Your task to perform on an android device: toggle show notifications on the lock screen Image 0: 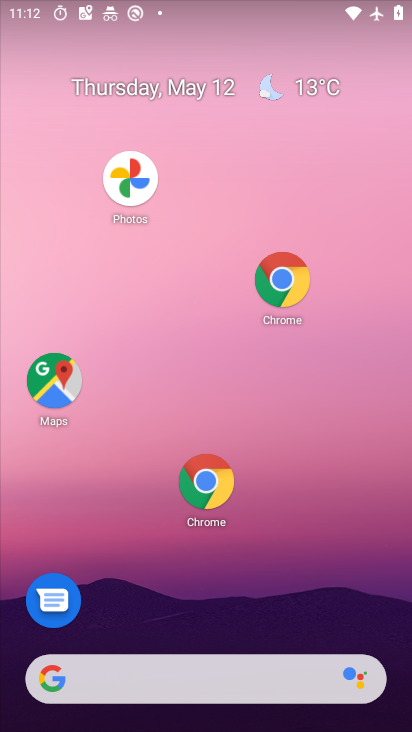
Step 0: click (134, 41)
Your task to perform on an android device: toggle show notifications on the lock screen Image 1: 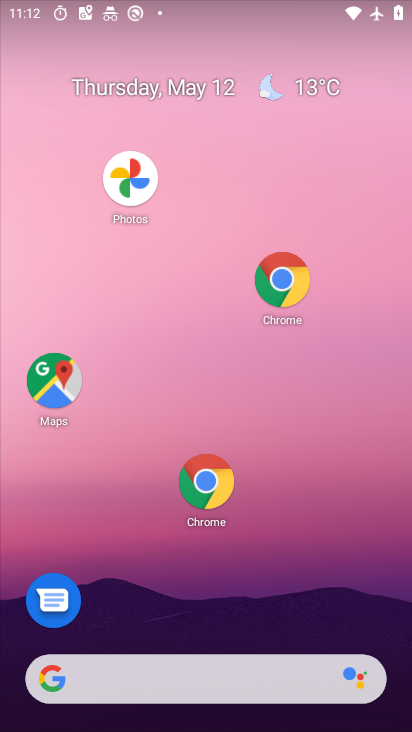
Step 1: drag from (246, 495) to (186, 1)
Your task to perform on an android device: toggle show notifications on the lock screen Image 2: 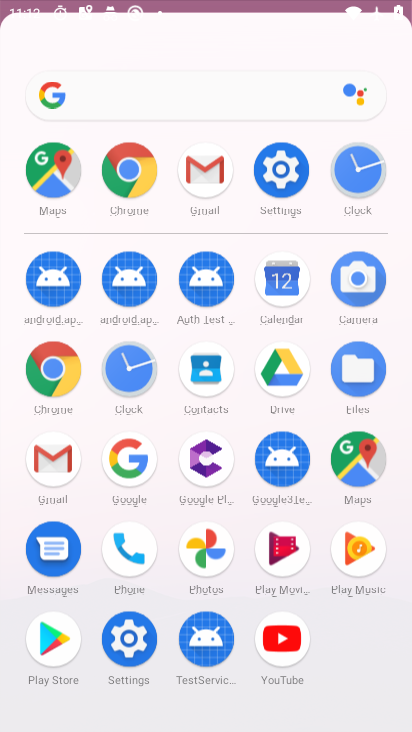
Step 2: drag from (199, 538) to (191, 76)
Your task to perform on an android device: toggle show notifications on the lock screen Image 3: 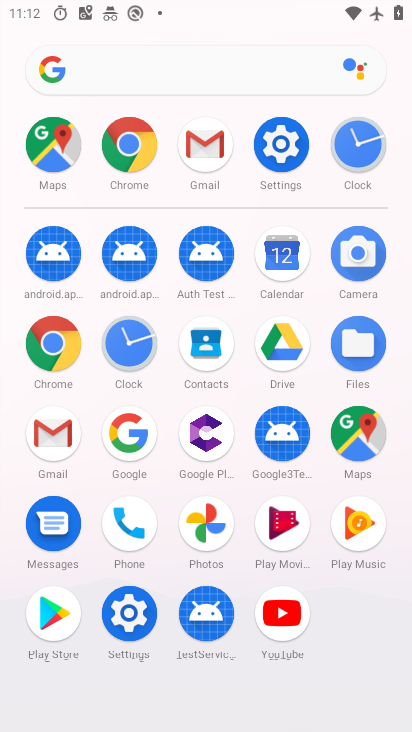
Step 3: click (122, 347)
Your task to perform on an android device: toggle show notifications on the lock screen Image 4: 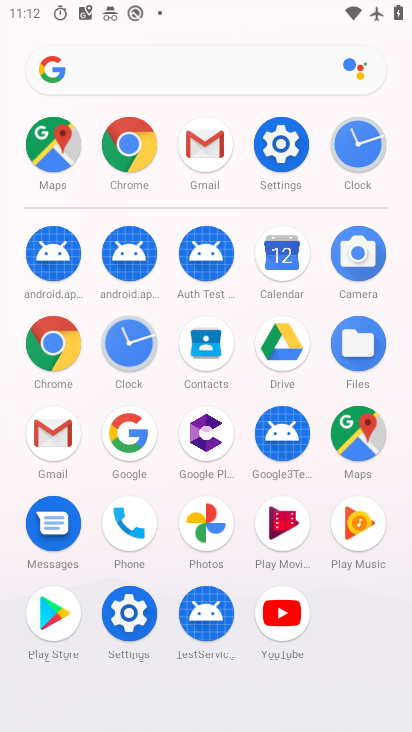
Step 4: click (123, 342)
Your task to perform on an android device: toggle show notifications on the lock screen Image 5: 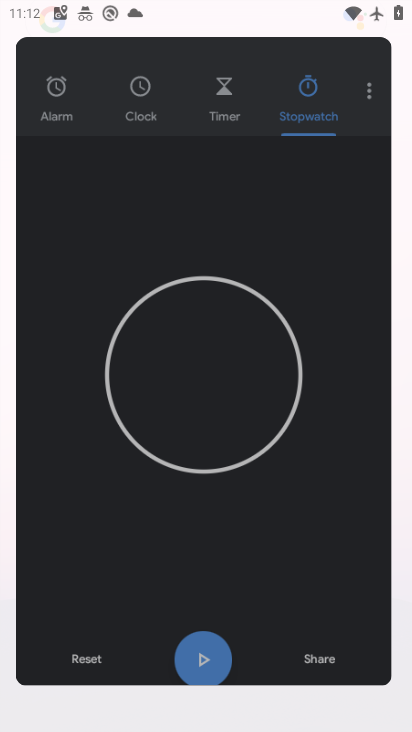
Step 5: click (128, 344)
Your task to perform on an android device: toggle show notifications on the lock screen Image 6: 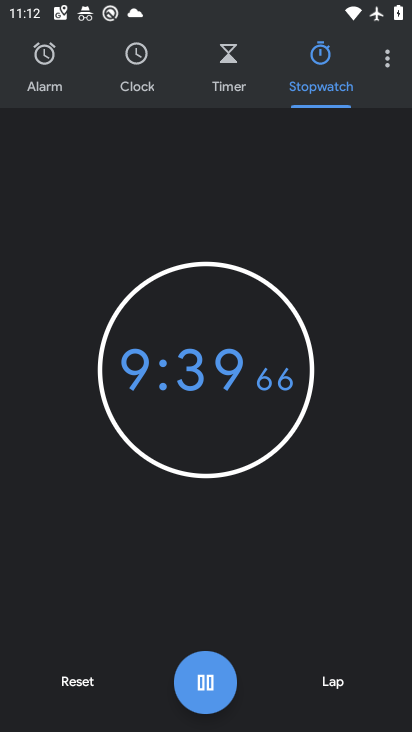
Step 6: click (199, 680)
Your task to perform on an android device: toggle show notifications on the lock screen Image 7: 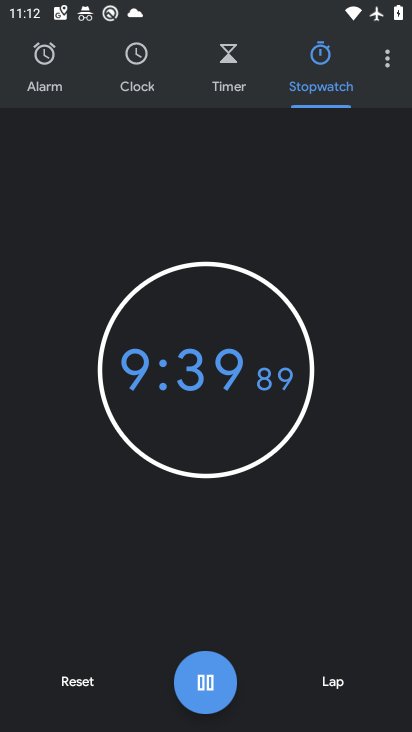
Step 7: click (200, 680)
Your task to perform on an android device: toggle show notifications on the lock screen Image 8: 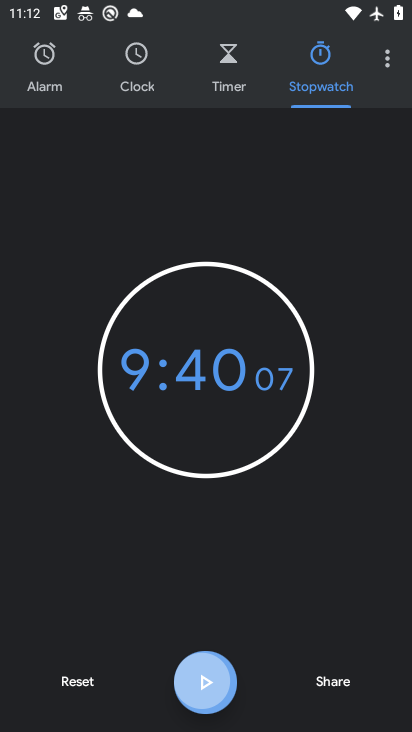
Step 8: click (196, 678)
Your task to perform on an android device: toggle show notifications on the lock screen Image 9: 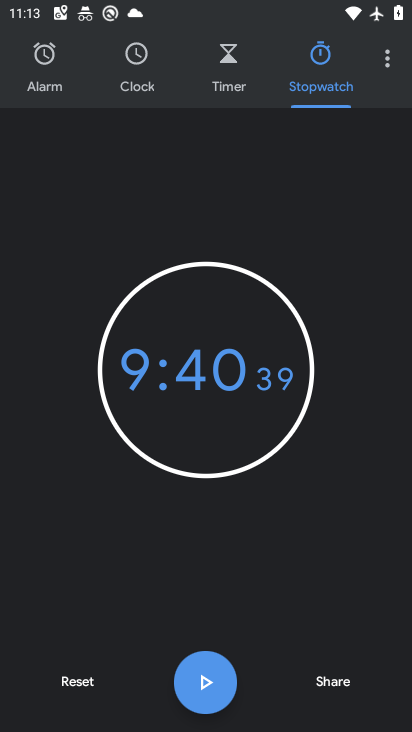
Step 9: press back button
Your task to perform on an android device: toggle show notifications on the lock screen Image 10: 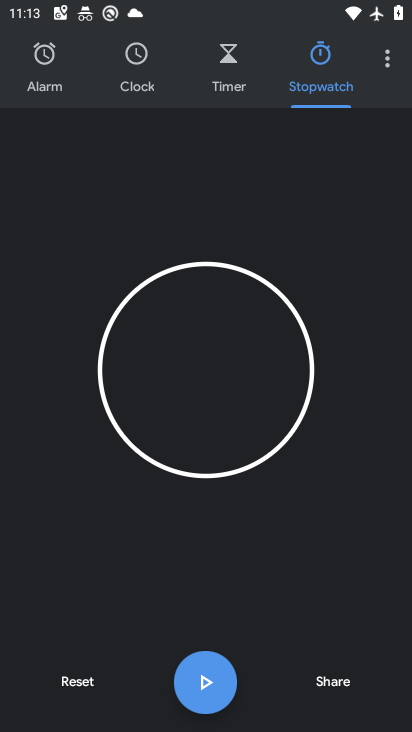
Step 10: press back button
Your task to perform on an android device: toggle show notifications on the lock screen Image 11: 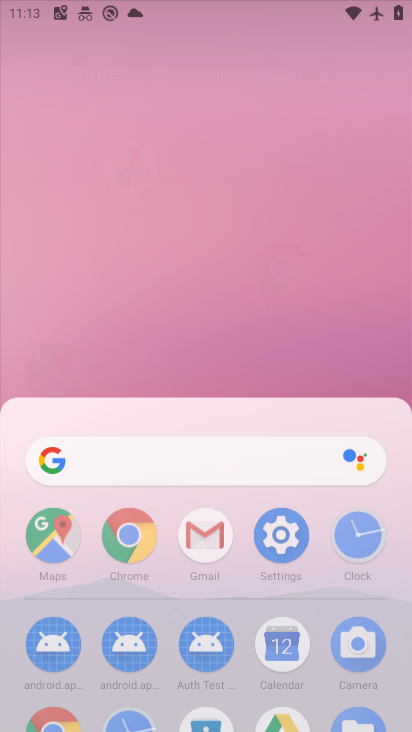
Step 11: press back button
Your task to perform on an android device: toggle show notifications on the lock screen Image 12: 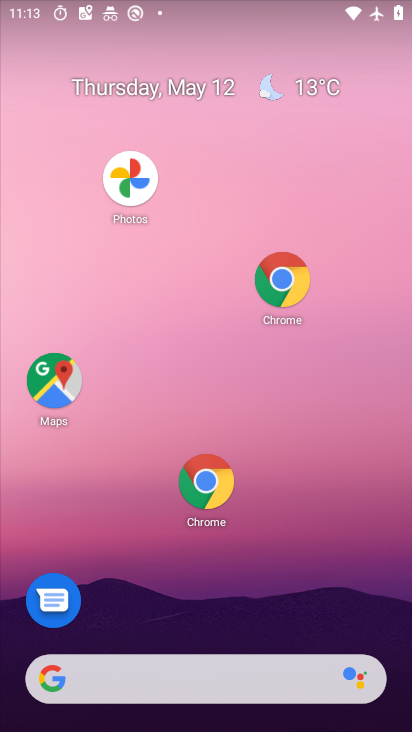
Step 12: drag from (284, 603) to (162, 14)
Your task to perform on an android device: toggle show notifications on the lock screen Image 13: 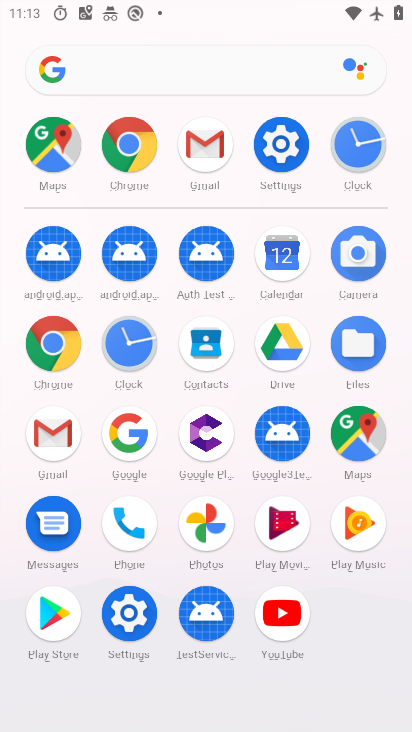
Step 13: click (135, 338)
Your task to perform on an android device: toggle show notifications on the lock screen Image 14: 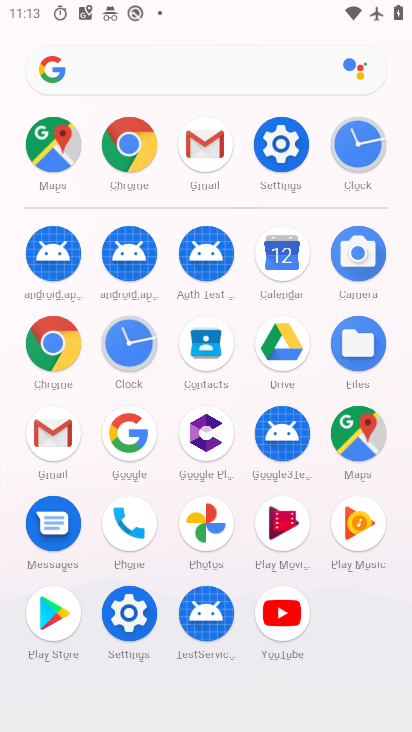
Step 14: click (135, 338)
Your task to perform on an android device: toggle show notifications on the lock screen Image 15: 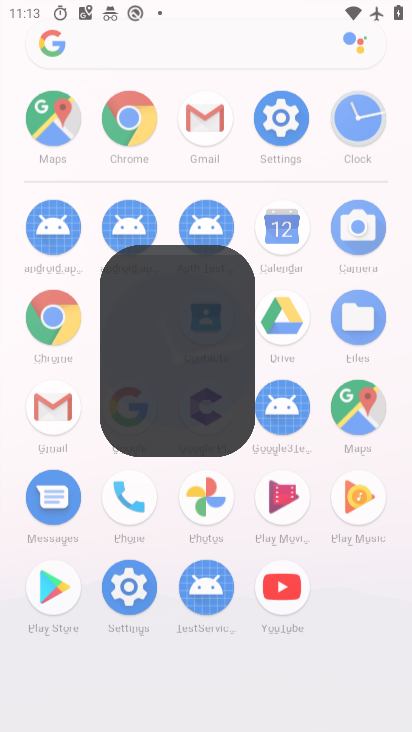
Step 15: click (135, 338)
Your task to perform on an android device: toggle show notifications on the lock screen Image 16: 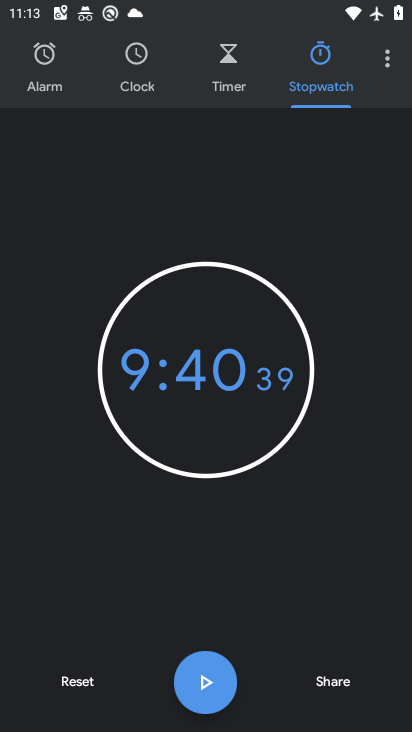
Step 16: click (384, 66)
Your task to perform on an android device: toggle show notifications on the lock screen Image 17: 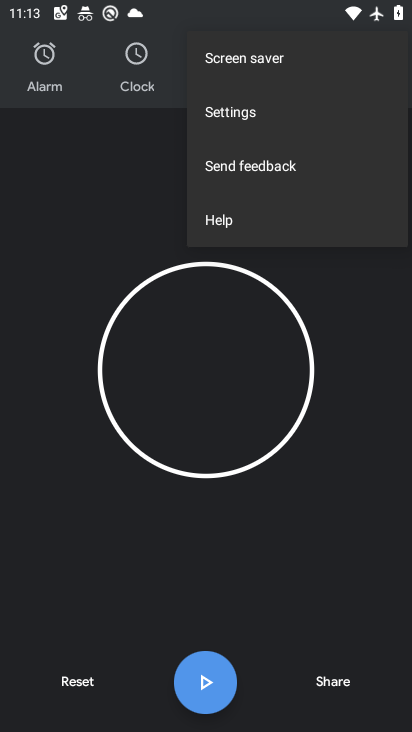
Step 17: click (231, 110)
Your task to perform on an android device: toggle show notifications on the lock screen Image 18: 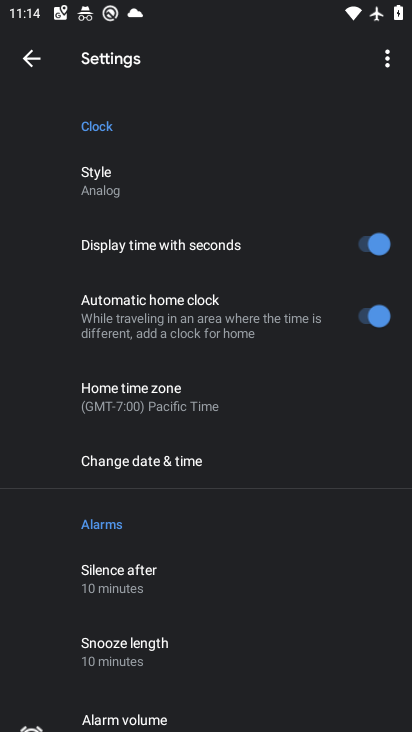
Step 18: press back button
Your task to perform on an android device: toggle show notifications on the lock screen Image 19: 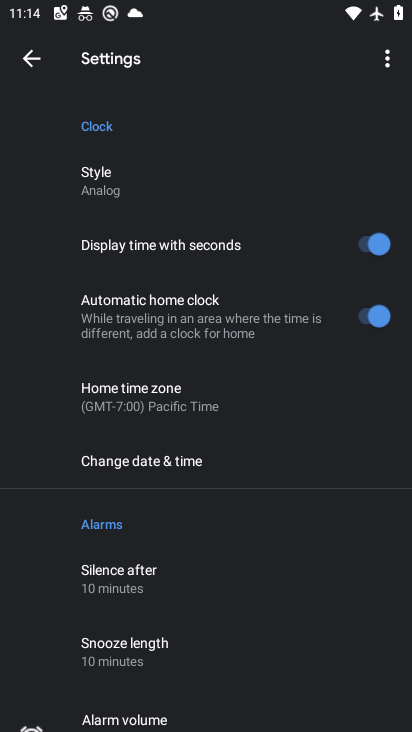
Step 19: press back button
Your task to perform on an android device: toggle show notifications on the lock screen Image 20: 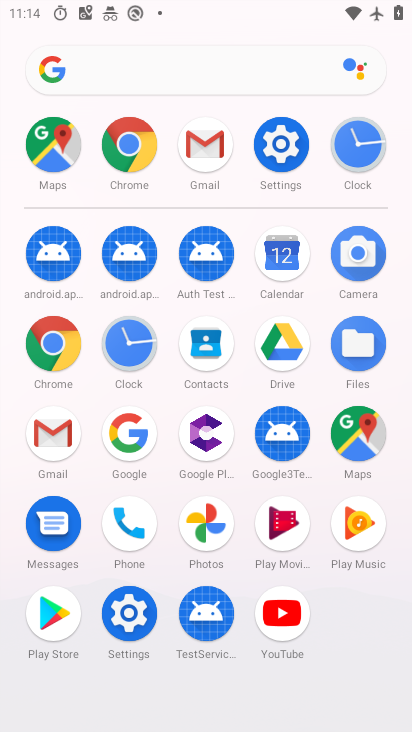
Step 20: click (284, 153)
Your task to perform on an android device: toggle show notifications on the lock screen Image 21: 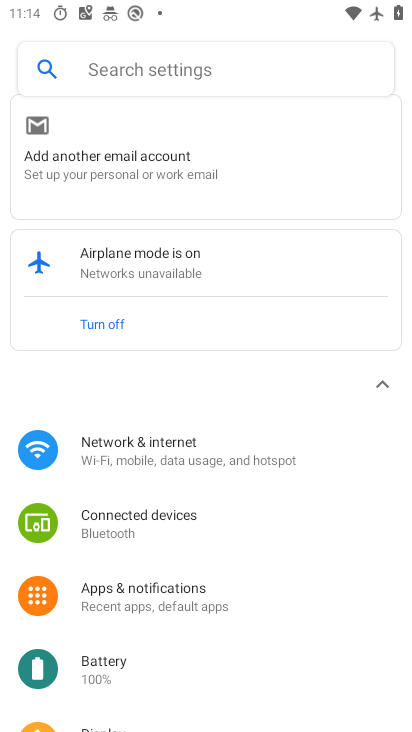
Step 21: drag from (129, 524) to (88, 348)
Your task to perform on an android device: toggle show notifications on the lock screen Image 22: 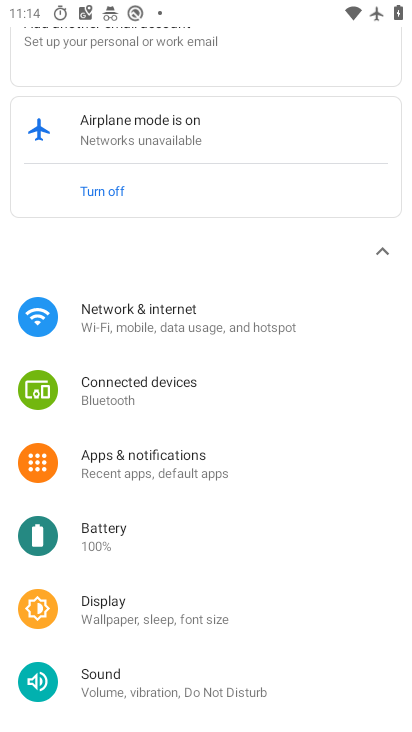
Step 22: drag from (168, 569) to (164, 354)
Your task to perform on an android device: toggle show notifications on the lock screen Image 23: 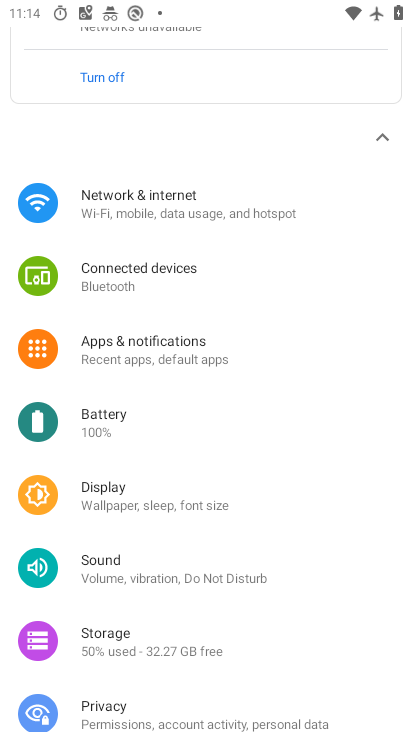
Step 23: drag from (192, 367) to (193, 238)
Your task to perform on an android device: toggle show notifications on the lock screen Image 24: 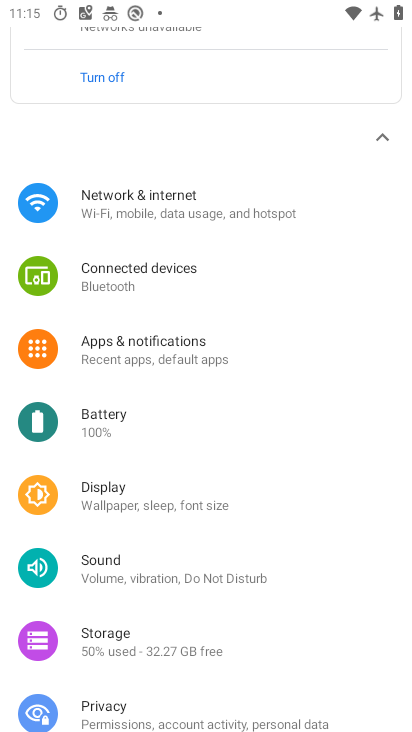
Step 24: click (127, 351)
Your task to perform on an android device: toggle show notifications on the lock screen Image 25: 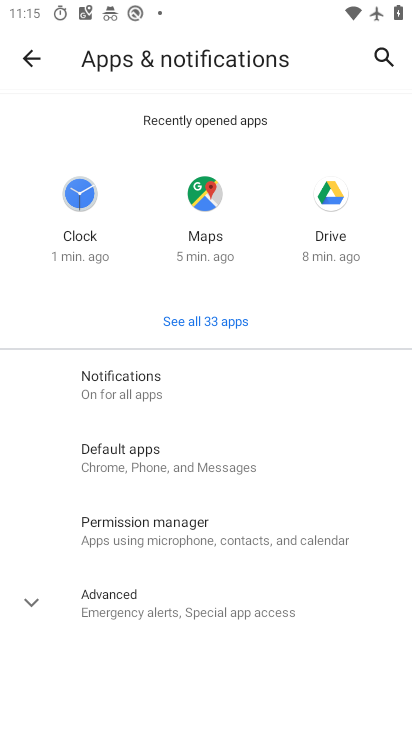
Step 25: click (102, 379)
Your task to perform on an android device: toggle show notifications on the lock screen Image 26: 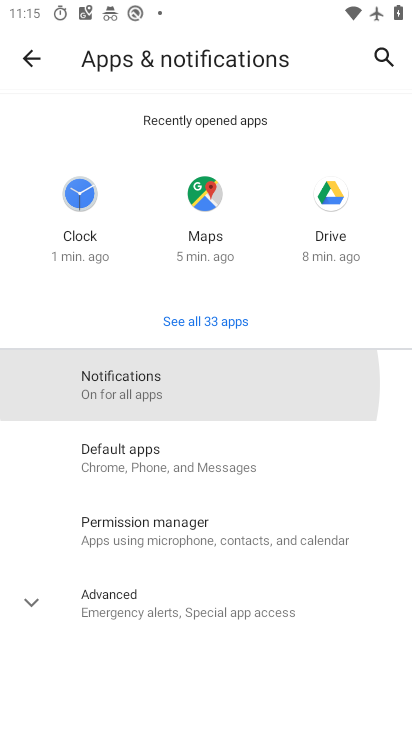
Step 26: click (106, 384)
Your task to perform on an android device: toggle show notifications on the lock screen Image 27: 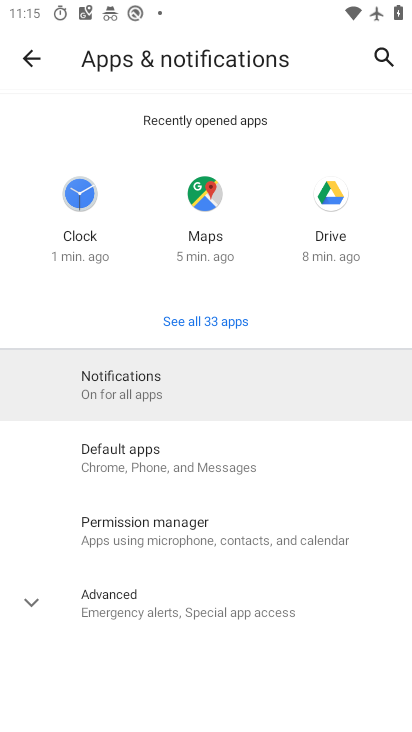
Step 27: click (108, 384)
Your task to perform on an android device: toggle show notifications on the lock screen Image 28: 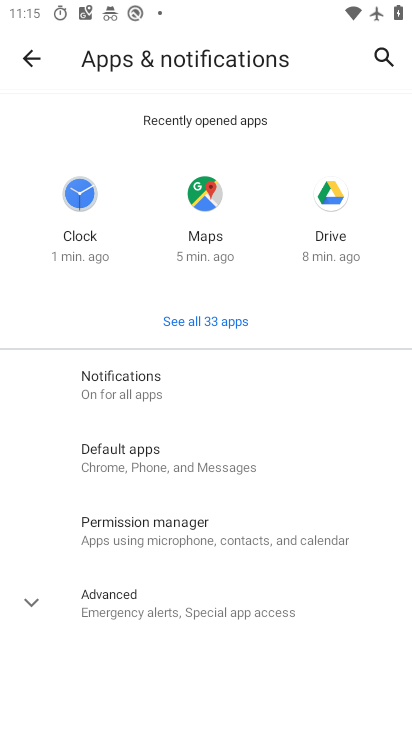
Step 28: click (108, 383)
Your task to perform on an android device: toggle show notifications on the lock screen Image 29: 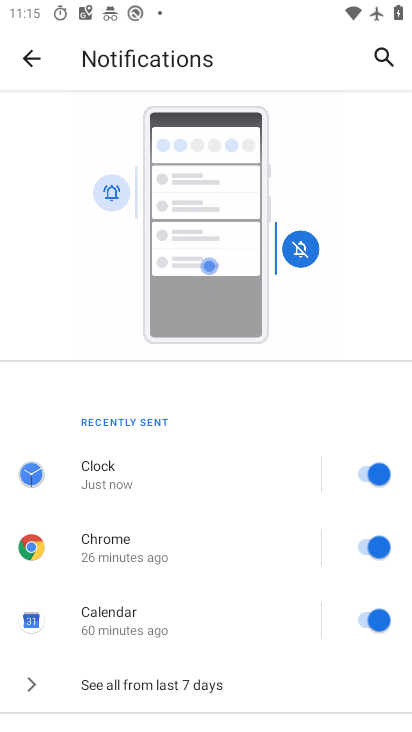
Step 29: drag from (233, 555) to (154, 44)
Your task to perform on an android device: toggle show notifications on the lock screen Image 30: 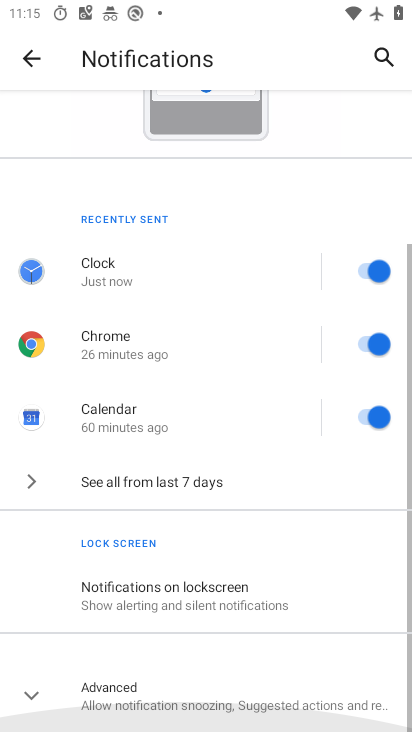
Step 30: drag from (244, 217) to (241, 47)
Your task to perform on an android device: toggle show notifications on the lock screen Image 31: 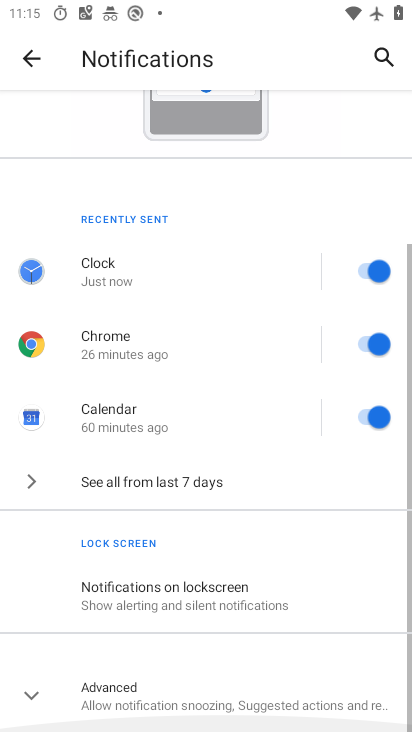
Step 31: drag from (255, 509) to (259, 172)
Your task to perform on an android device: toggle show notifications on the lock screen Image 32: 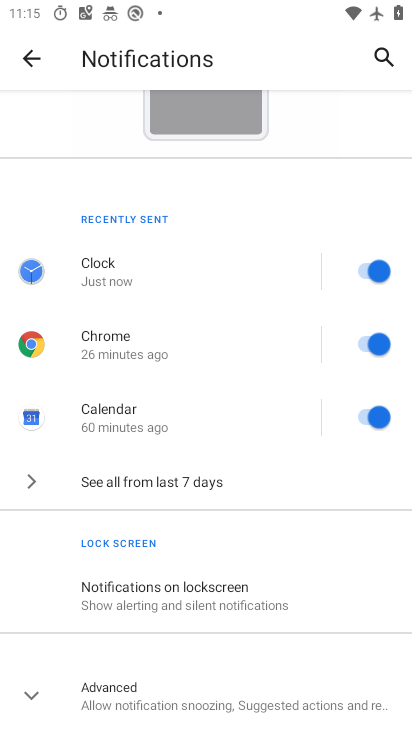
Step 32: click (152, 590)
Your task to perform on an android device: toggle show notifications on the lock screen Image 33: 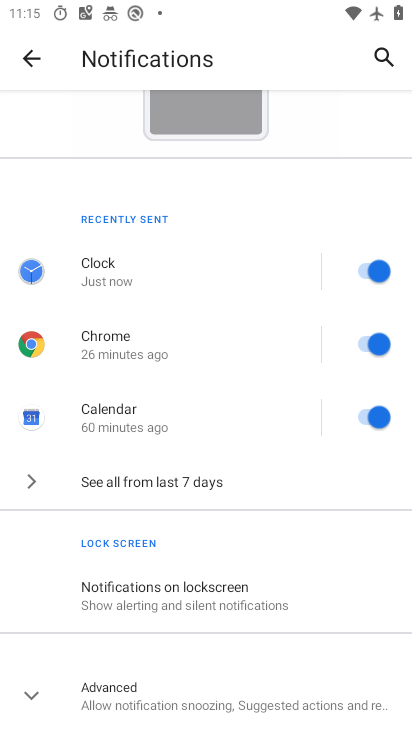
Step 33: click (153, 591)
Your task to perform on an android device: toggle show notifications on the lock screen Image 34: 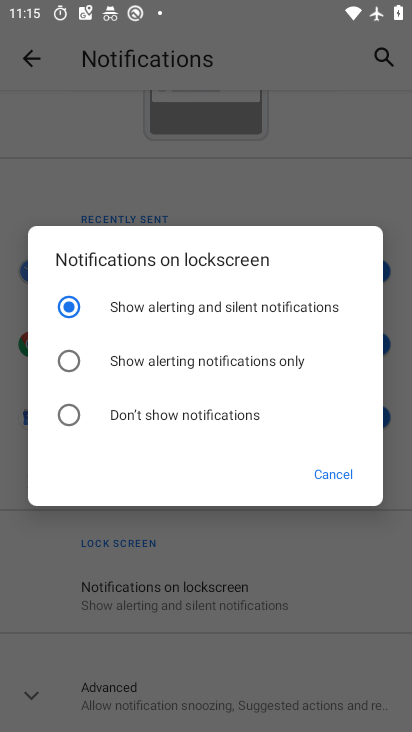
Step 34: click (147, 569)
Your task to perform on an android device: toggle show notifications on the lock screen Image 35: 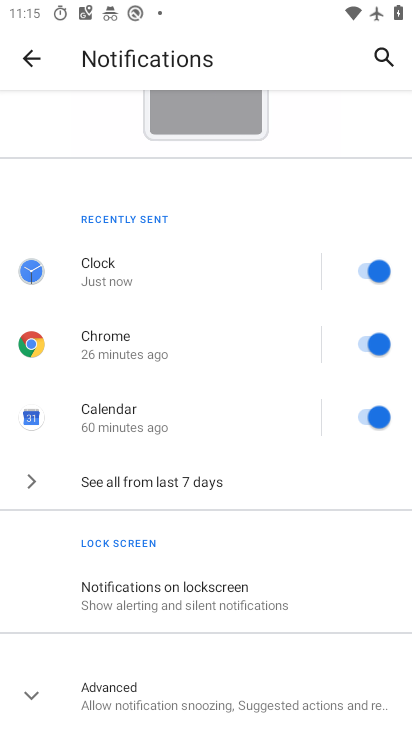
Step 35: click (168, 589)
Your task to perform on an android device: toggle show notifications on the lock screen Image 36: 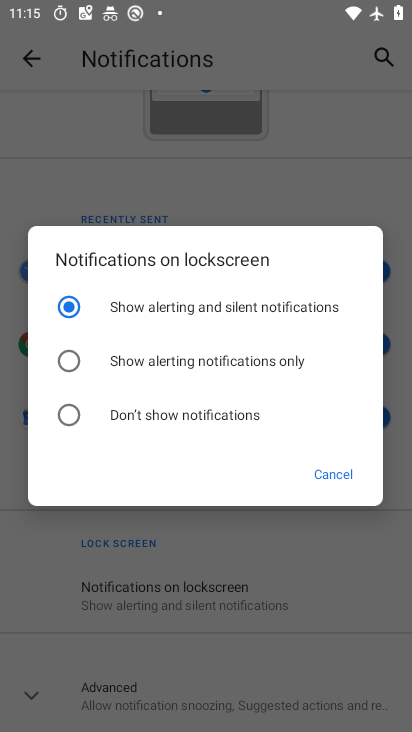
Step 36: click (341, 481)
Your task to perform on an android device: toggle show notifications on the lock screen Image 37: 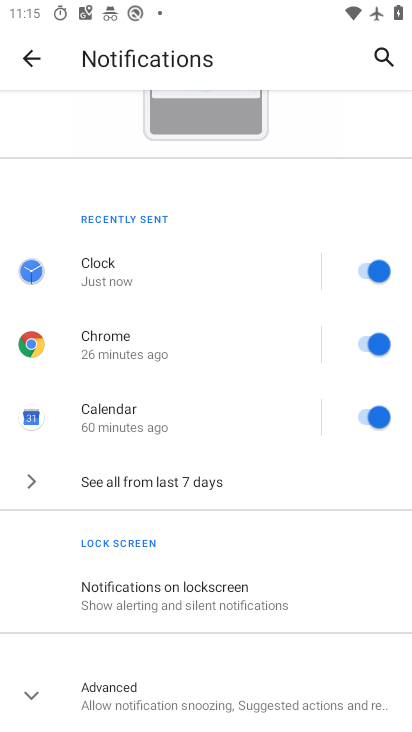
Step 37: task complete